Your task to perform on an android device: Open display settings Image 0: 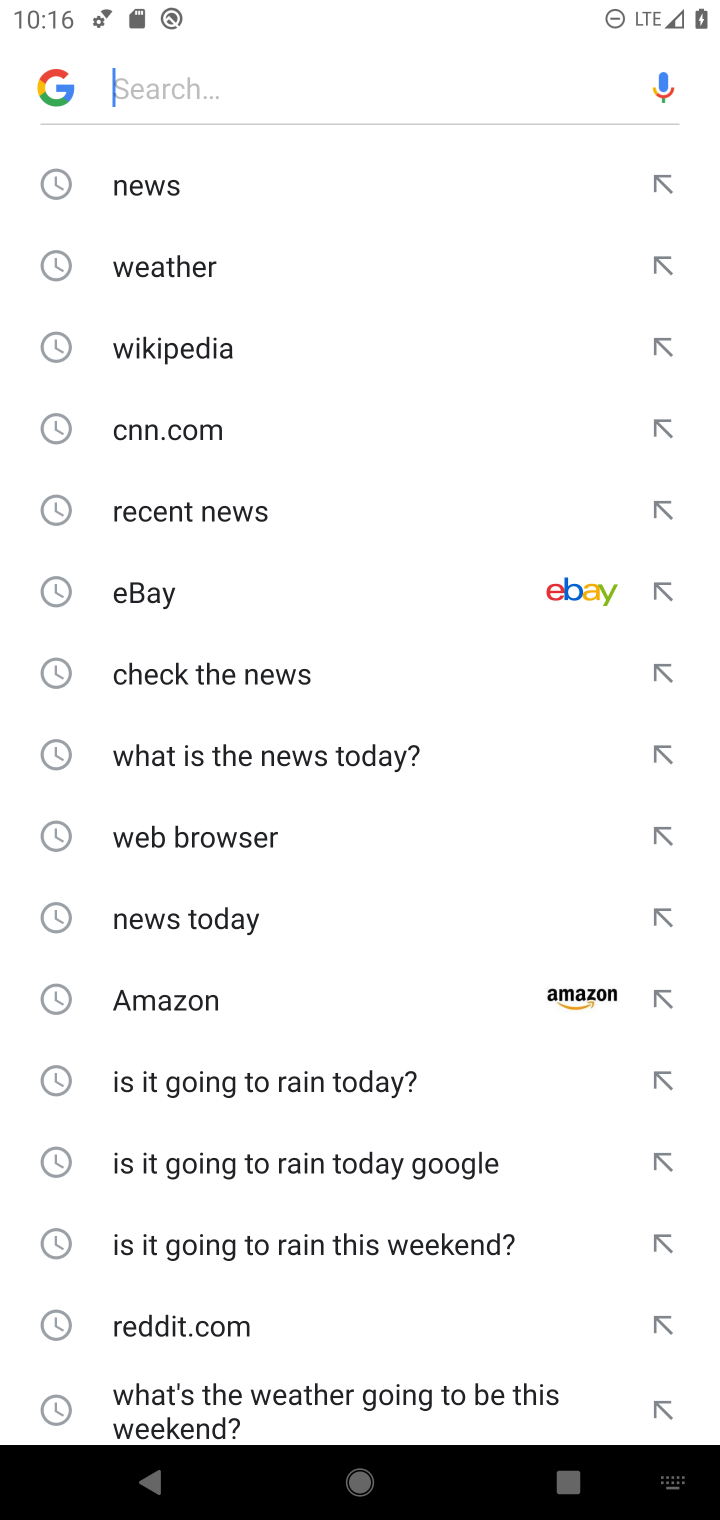
Step 0: press home button
Your task to perform on an android device: Open display settings Image 1: 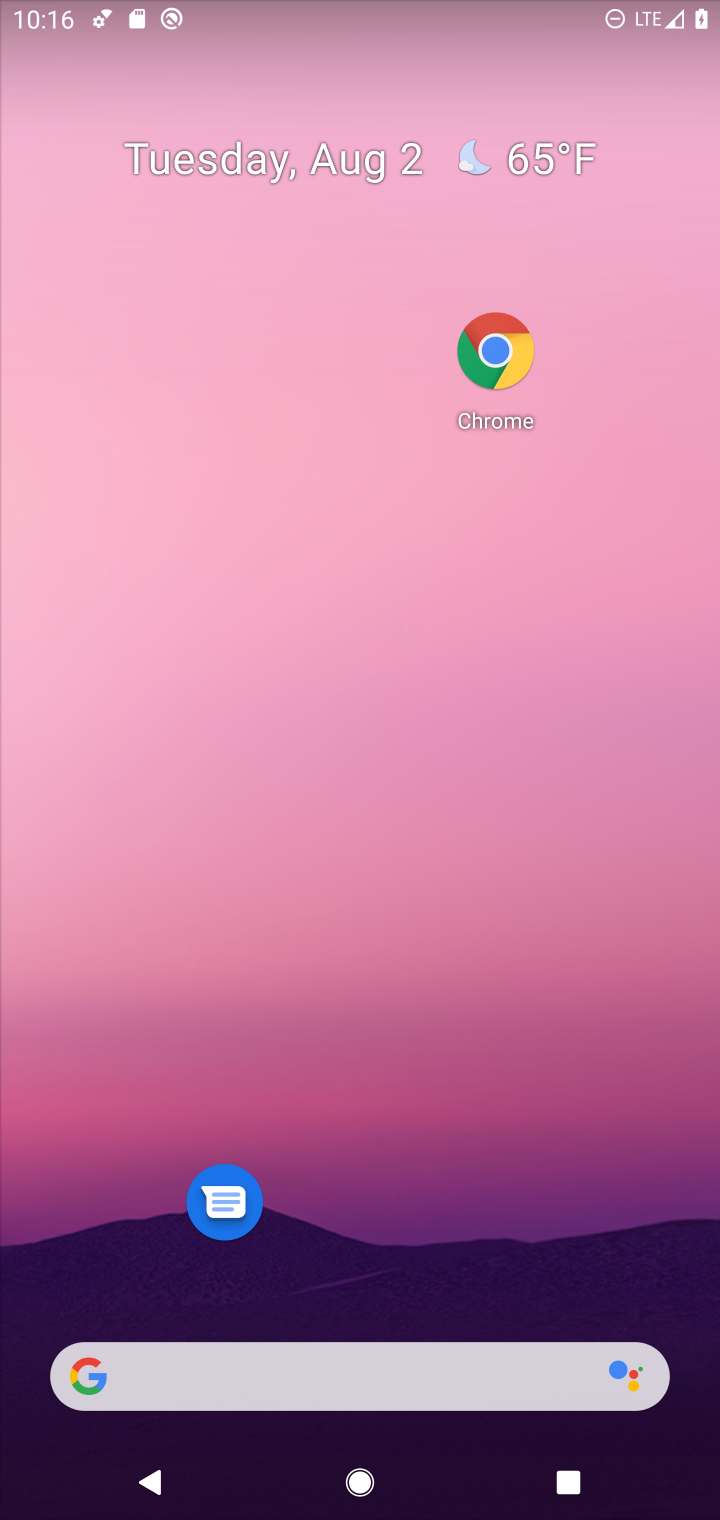
Step 1: drag from (389, 1276) to (361, 58)
Your task to perform on an android device: Open display settings Image 2: 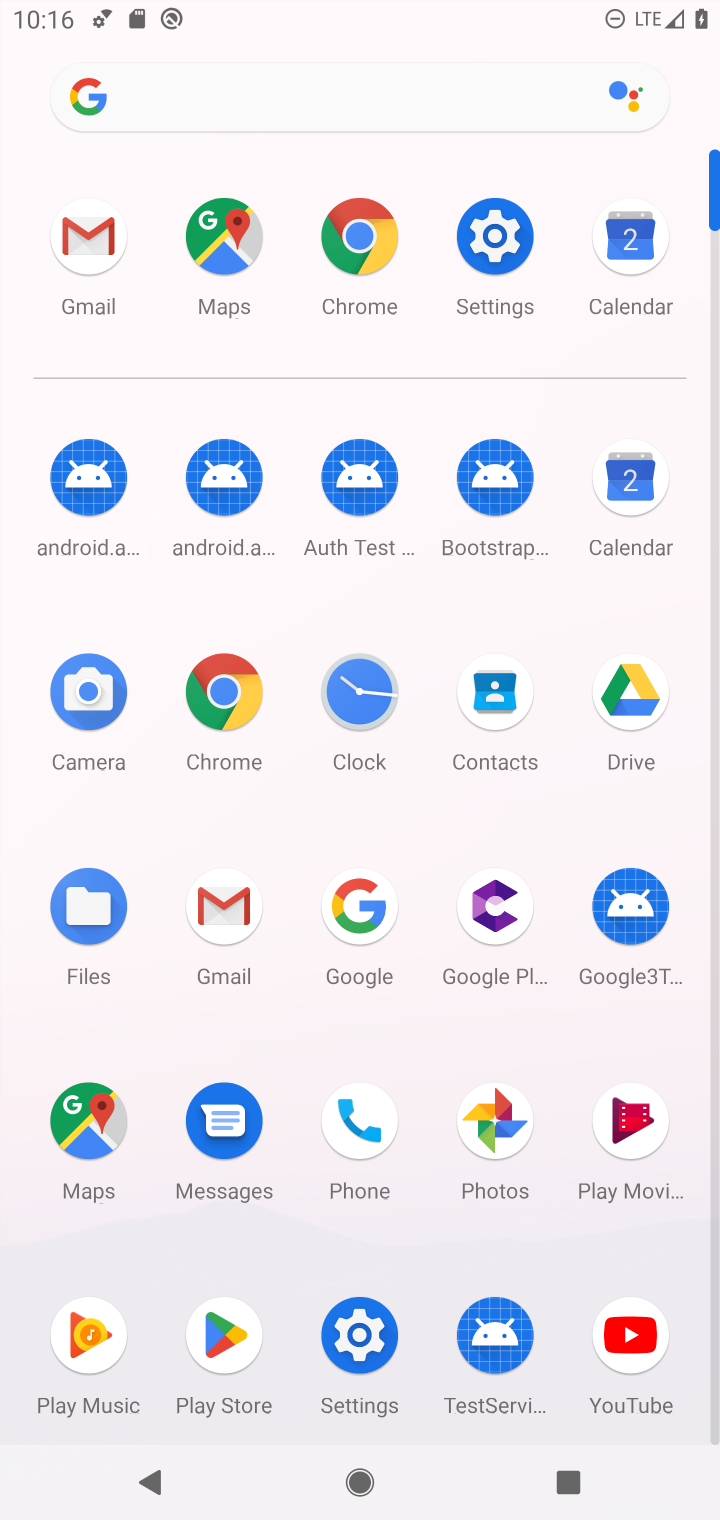
Step 2: click (495, 246)
Your task to perform on an android device: Open display settings Image 3: 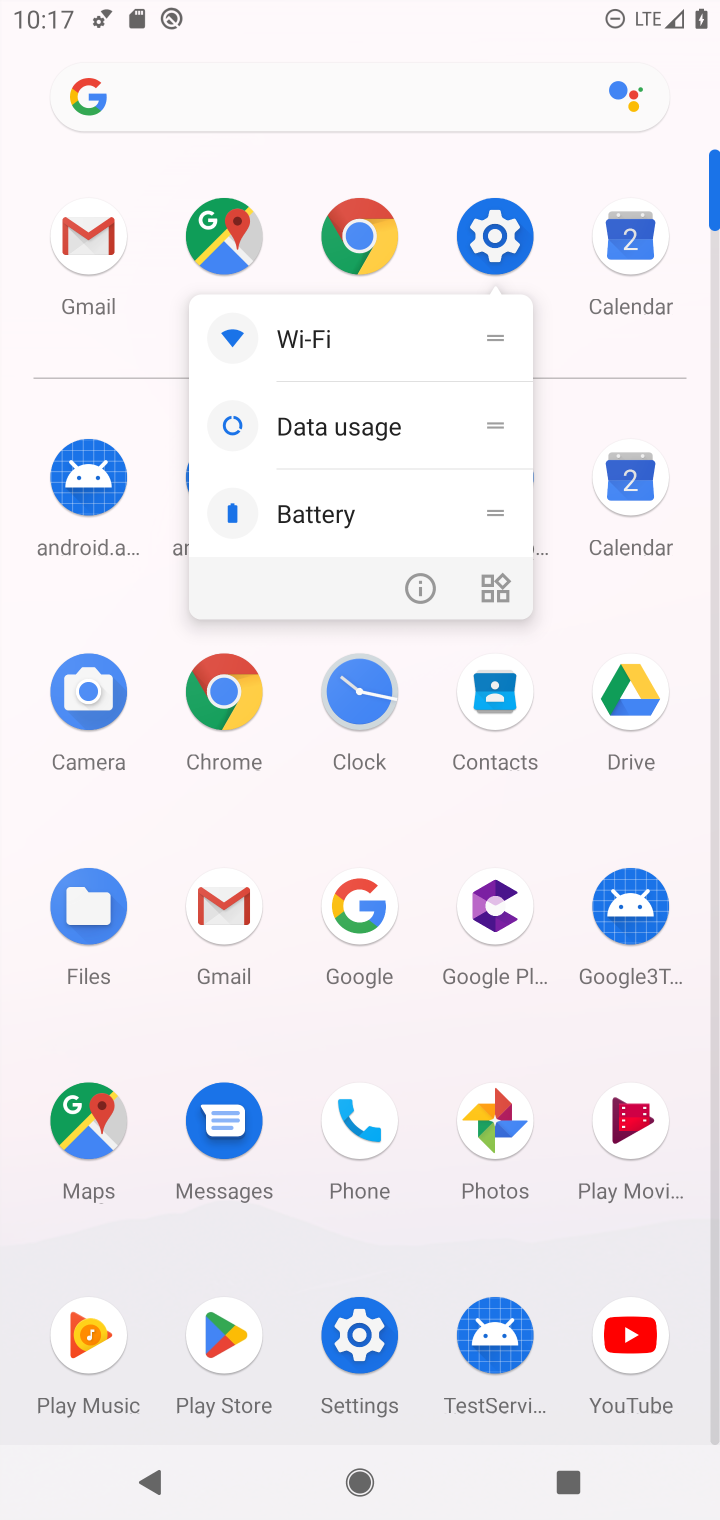
Step 3: click (495, 240)
Your task to perform on an android device: Open display settings Image 4: 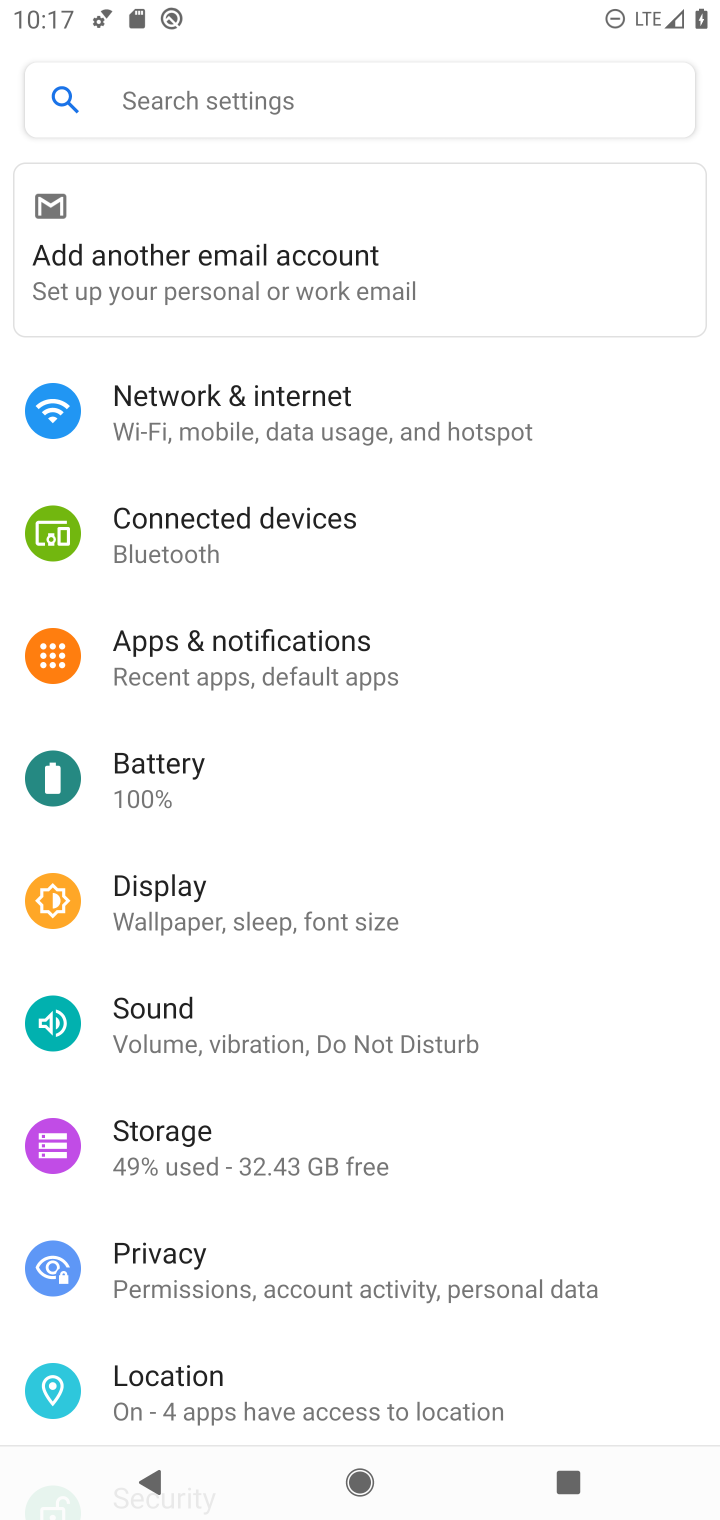
Step 4: click (177, 901)
Your task to perform on an android device: Open display settings Image 5: 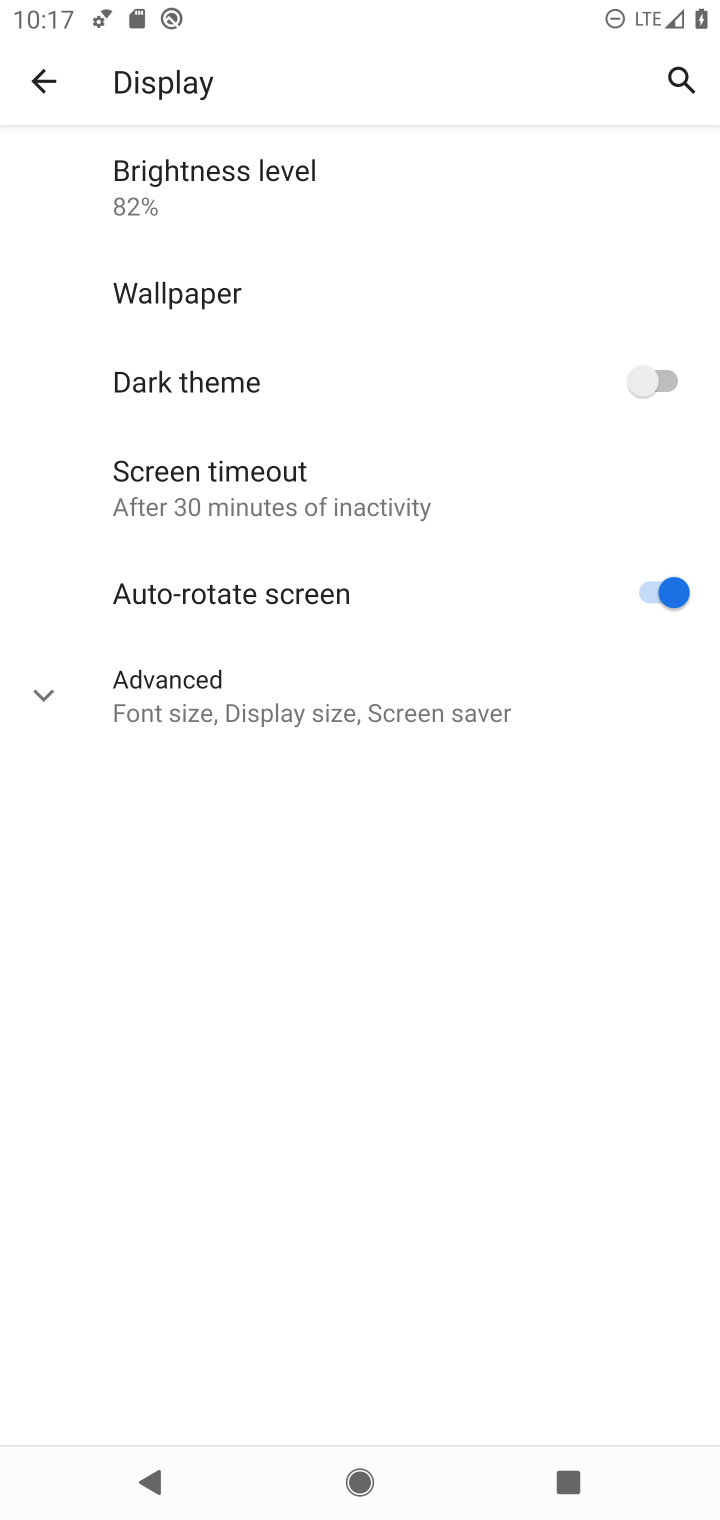
Step 5: task complete